Your task to perform on an android device: turn on bluetooth scan Image 0: 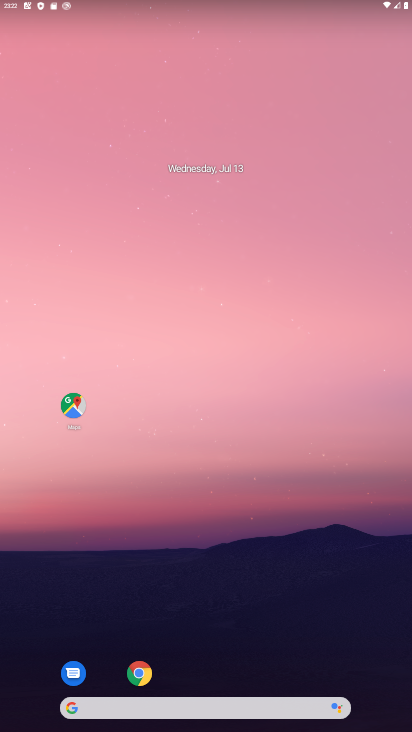
Step 0: drag from (155, 595) to (117, 181)
Your task to perform on an android device: turn on bluetooth scan Image 1: 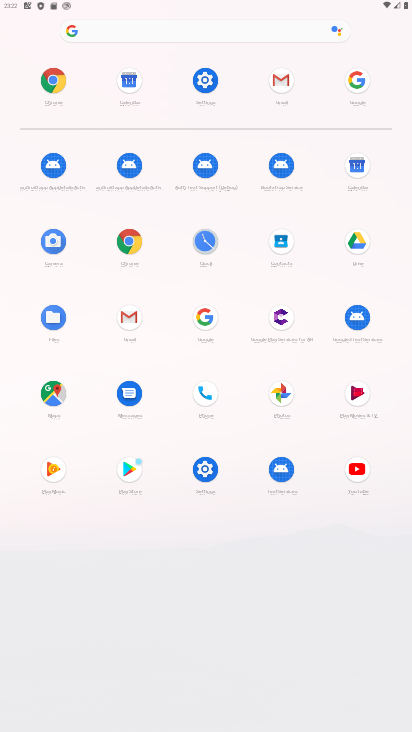
Step 1: click (207, 86)
Your task to perform on an android device: turn on bluetooth scan Image 2: 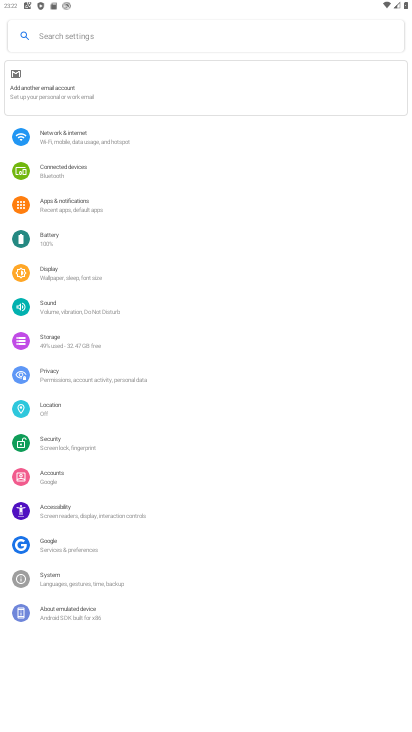
Step 2: click (47, 413)
Your task to perform on an android device: turn on bluetooth scan Image 3: 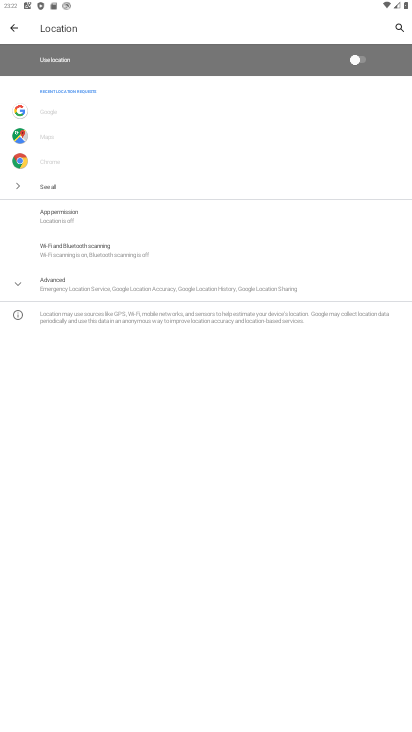
Step 3: click (99, 253)
Your task to perform on an android device: turn on bluetooth scan Image 4: 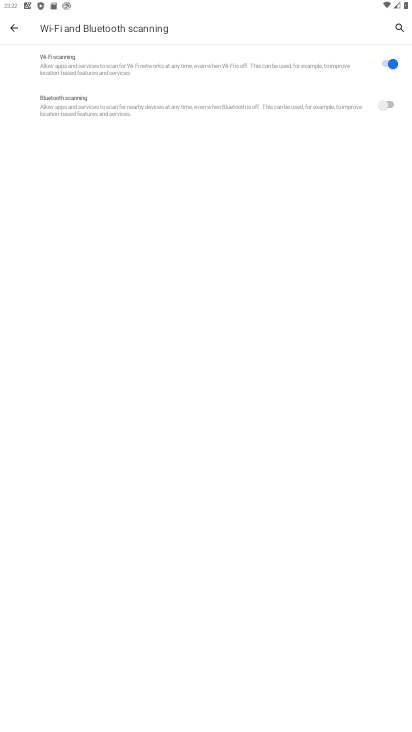
Step 4: click (385, 108)
Your task to perform on an android device: turn on bluetooth scan Image 5: 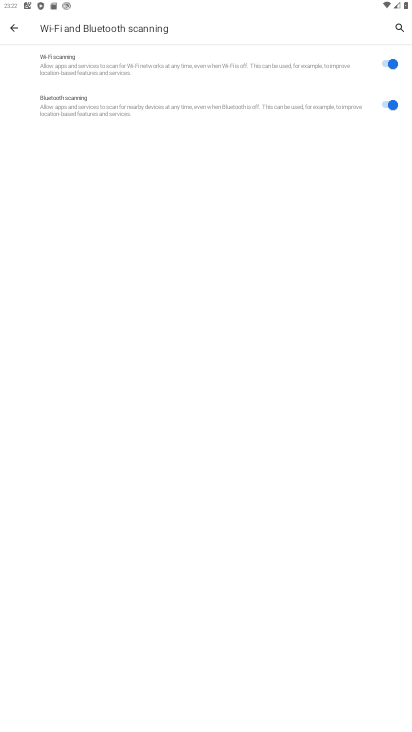
Step 5: task complete